Your task to perform on an android device: turn off notifications in google photos Image 0: 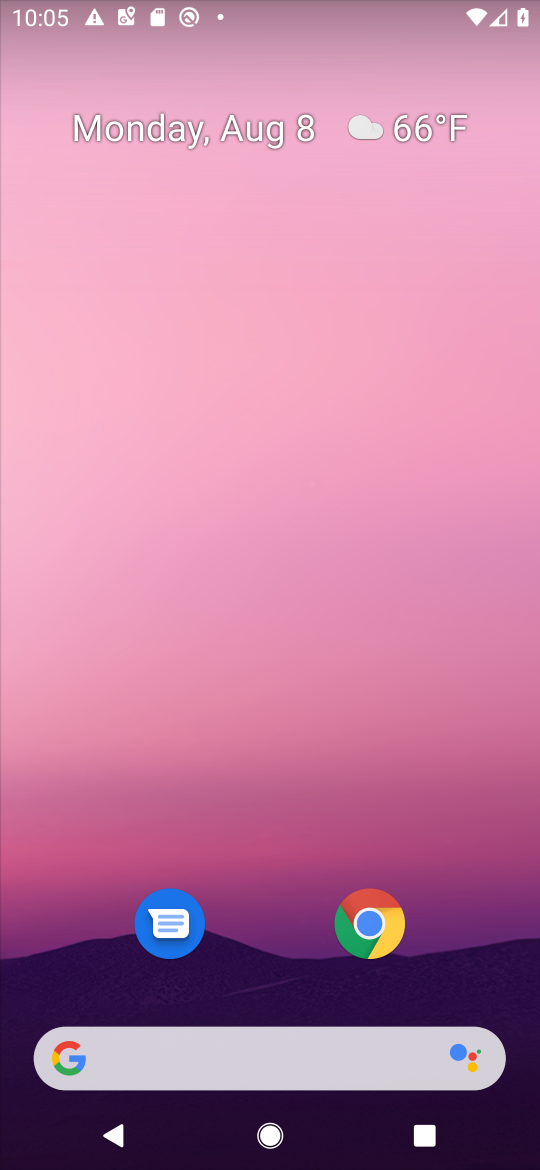
Step 0: drag from (55, 1134) to (240, 466)
Your task to perform on an android device: turn off notifications in google photos Image 1: 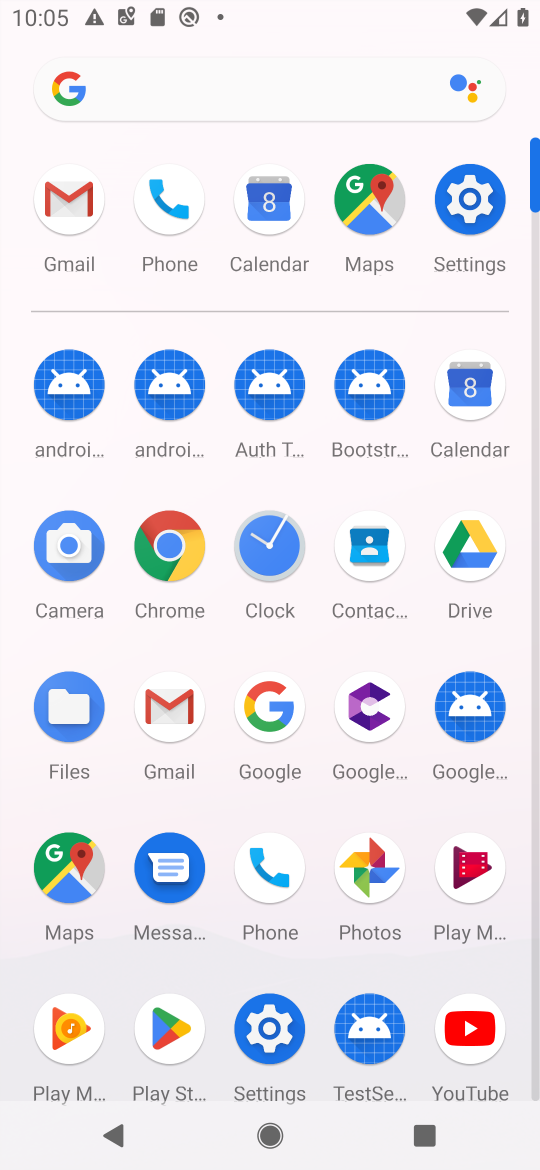
Step 1: click (352, 885)
Your task to perform on an android device: turn off notifications in google photos Image 2: 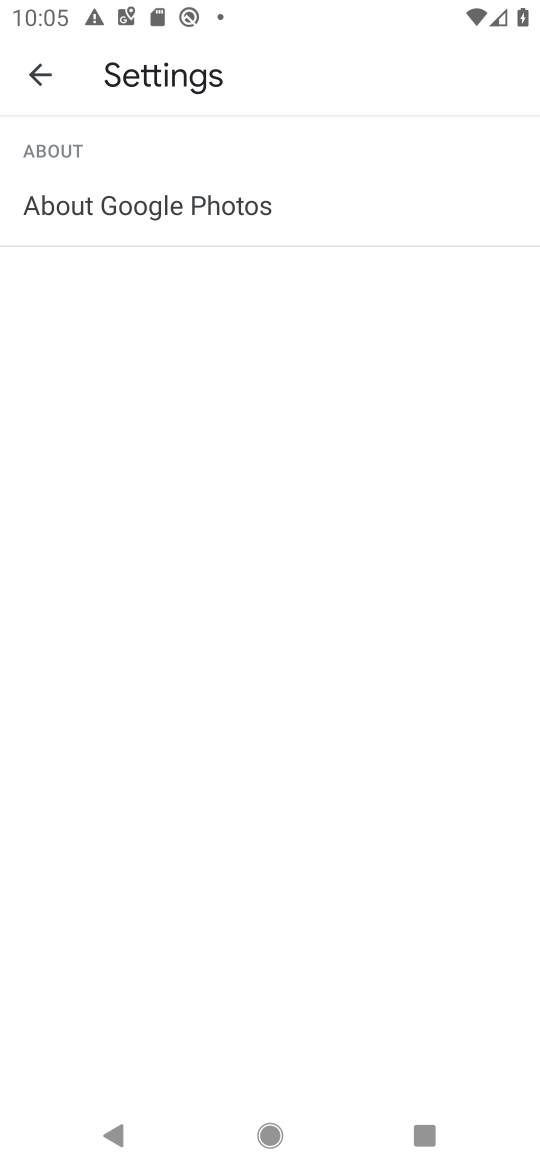
Step 2: click (21, 72)
Your task to perform on an android device: turn off notifications in google photos Image 3: 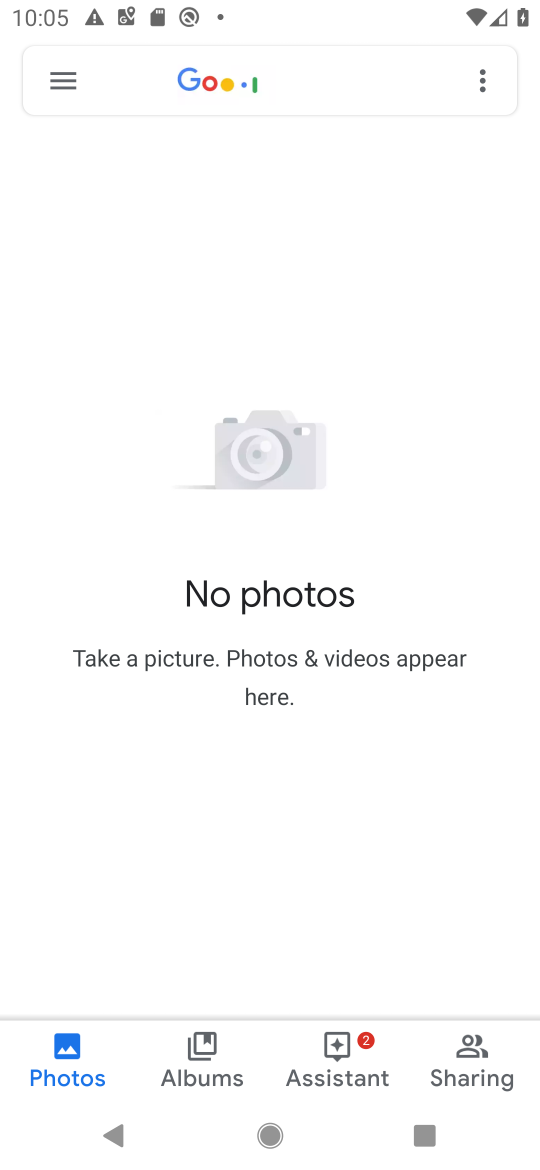
Step 3: click (71, 95)
Your task to perform on an android device: turn off notifications in google photos Image 4: 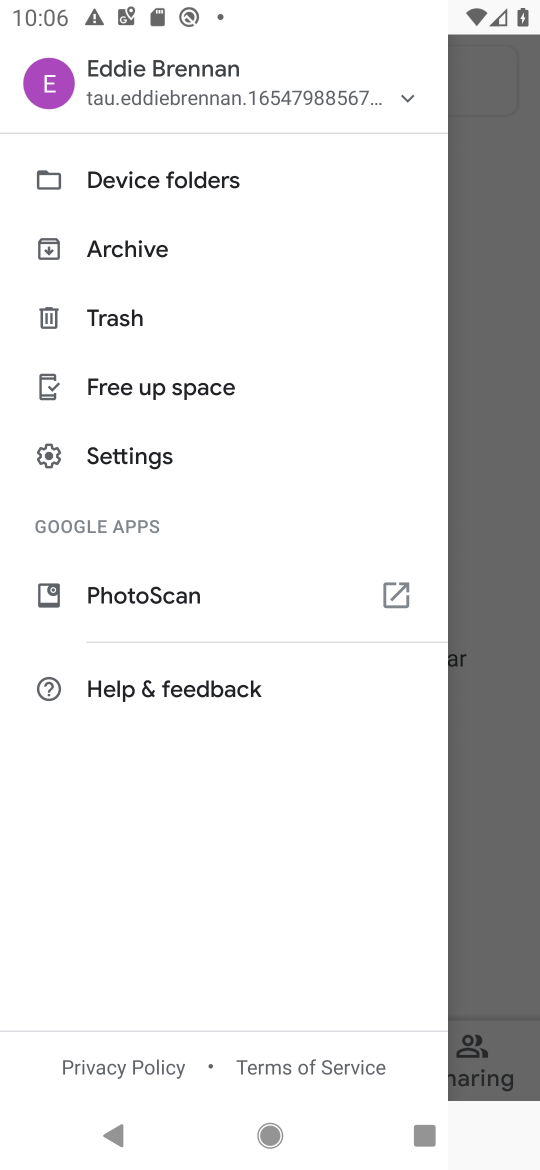
Step 4: click (124, 441)
Your task to perform on an android device: turn off notifications in google photos Image 5: 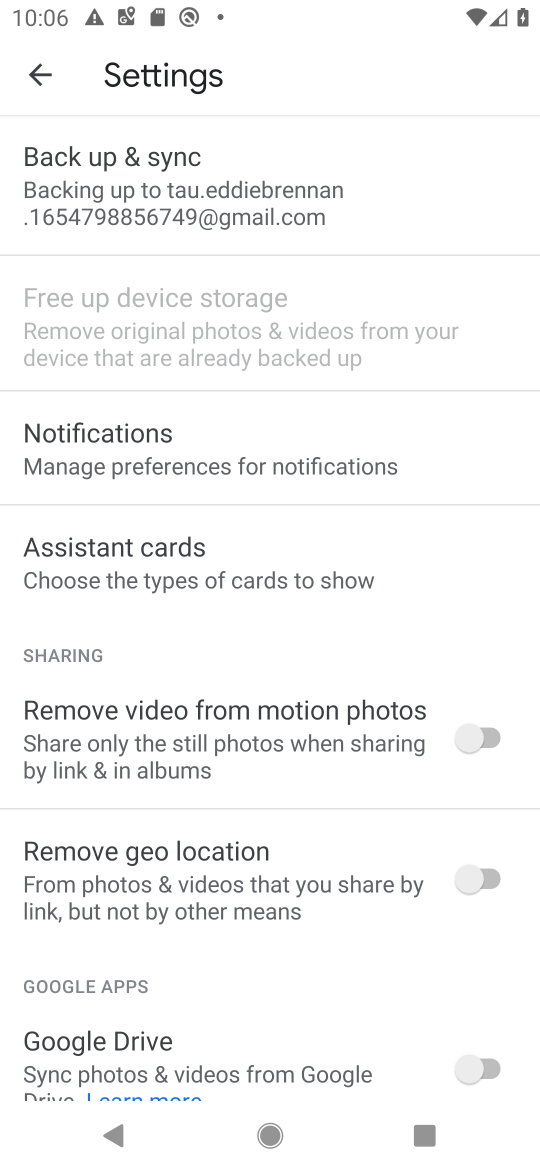
Step 5: click (124, 441)
Your task to perform on an android device: turn off notifications in google photos Image 6: 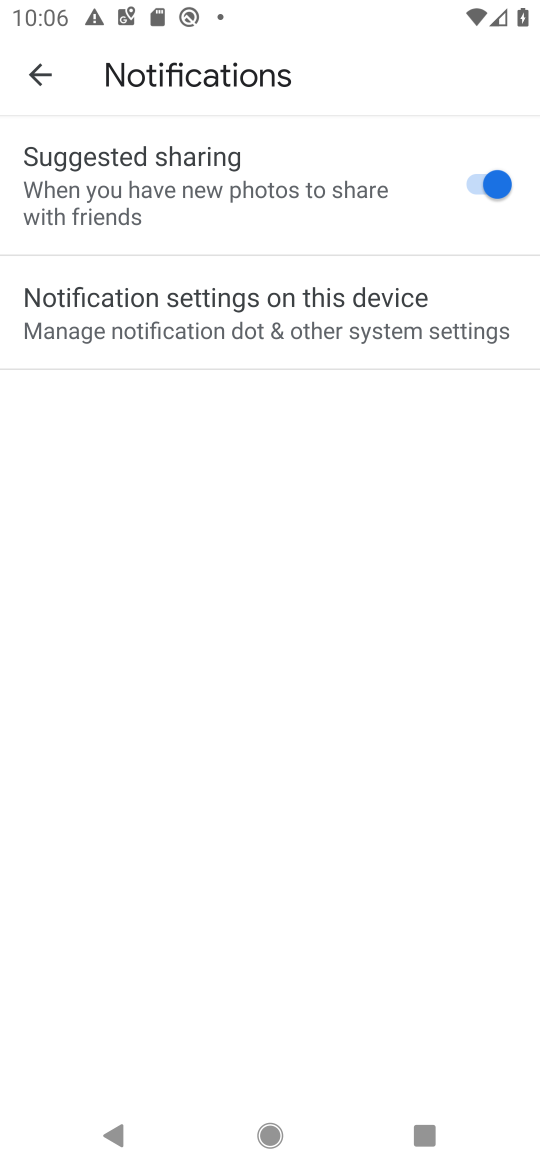
Step 6: click (199, 312)
Your task to perform on an android device: turn off notifications in google photos Image 7: 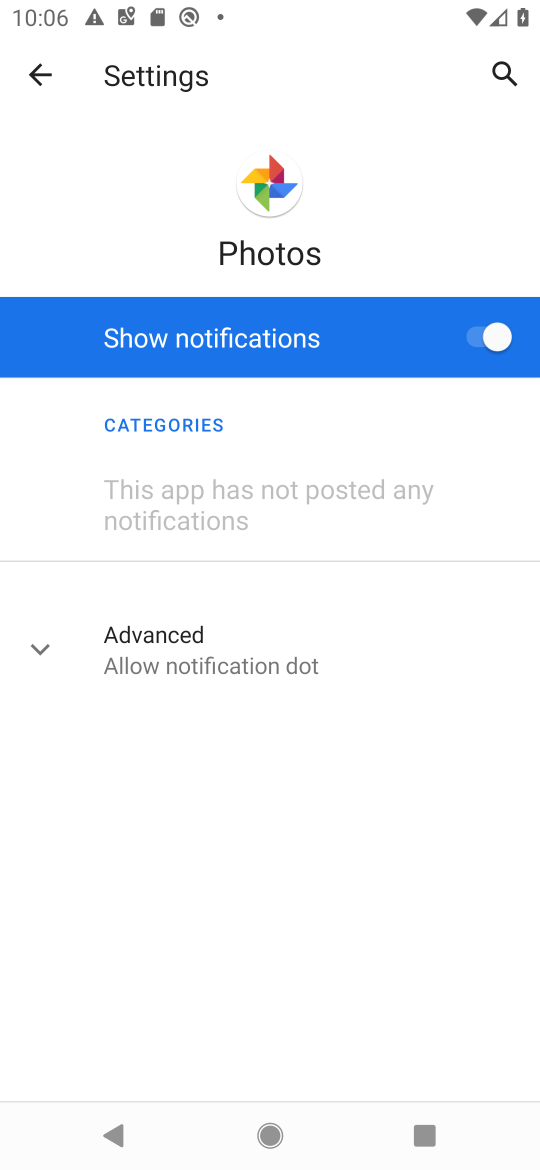
Step 7: click (501, 338)
Your task to perform on an android device: turn off notifications in google photos Image 8: 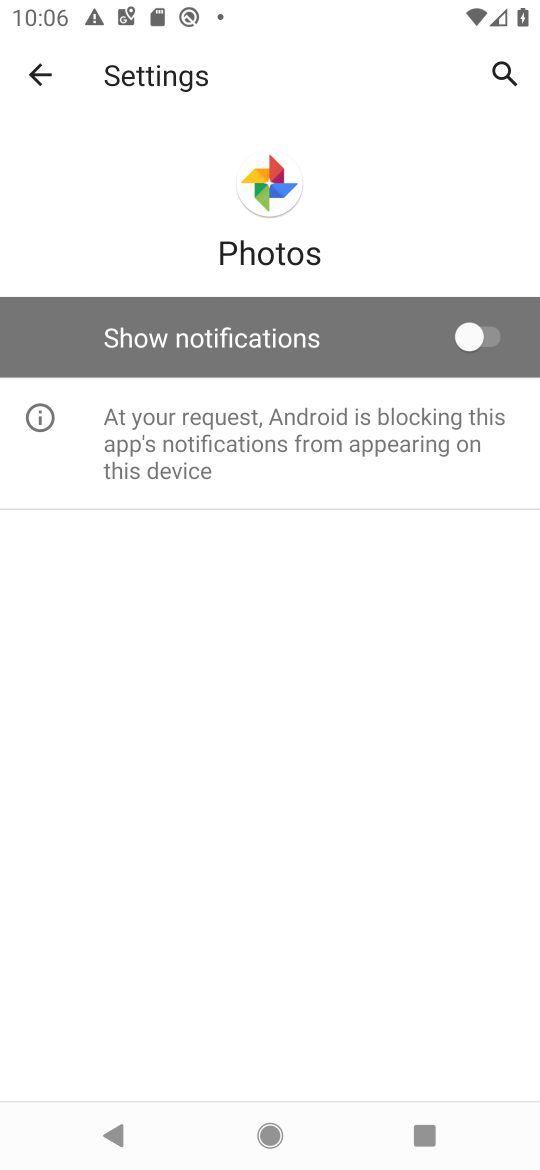
Step 8: task complete